Your task to perform on an android device: Search for Italian restaurants on Maps Image 0: 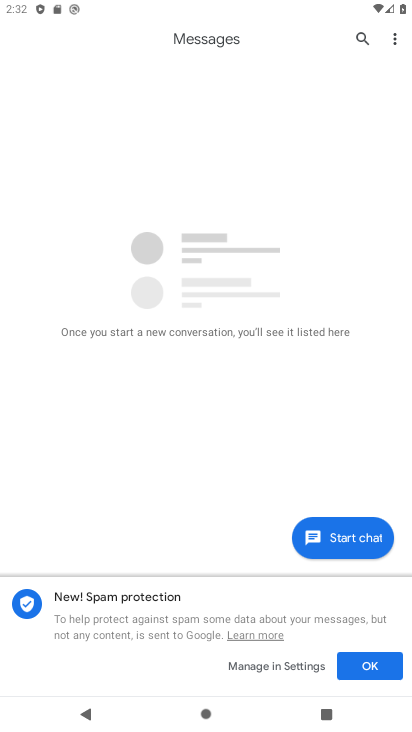
Step 0: press home button
Your task to perform on an android device: Search for Italian restaurants on Maps Image 1: 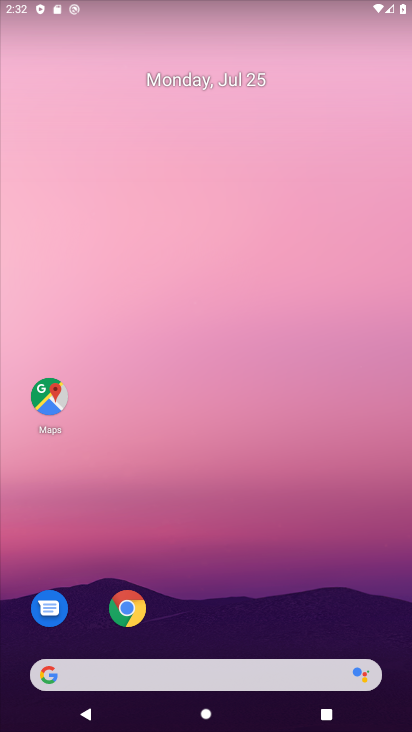
Step 1: click (52, 408)
Your task to perform on an android device: Search for Italian restaurants on Maps Image 2: 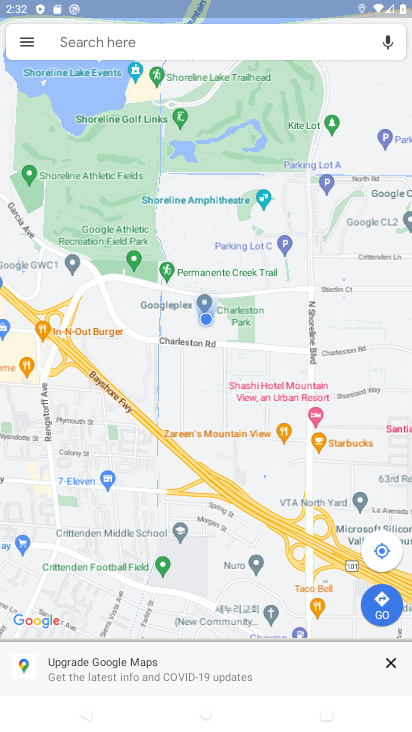
Step 2: click (193, 43)
Your task to perform on an android device: Search for Italian restaurants on Maps Image 3: 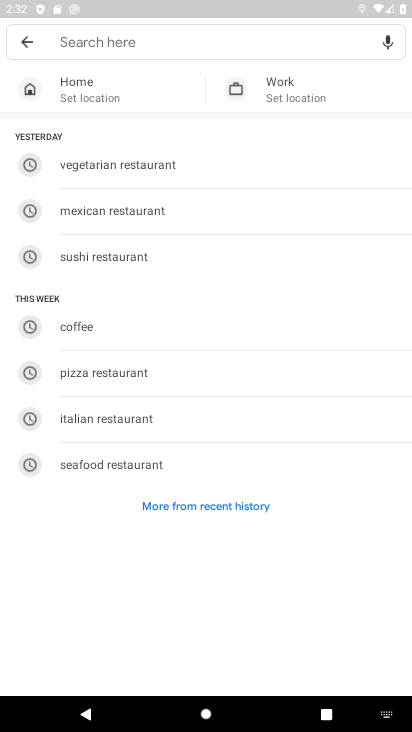
Step 3: click (121, 419)
Your task to perform on an android device: Search for Italian restaurants on Maps Image 4: 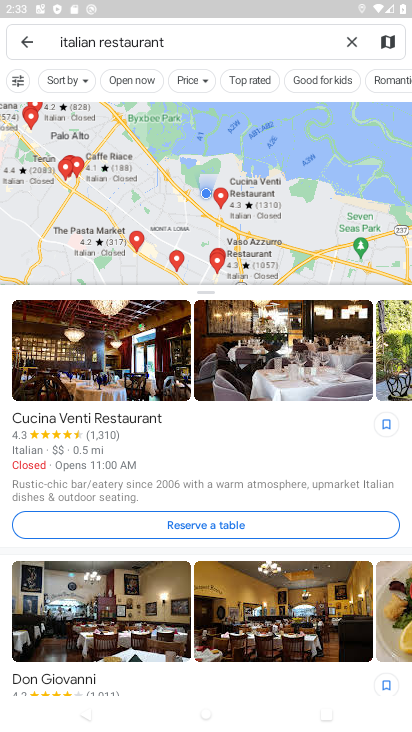
Step 4: task complete